Your task to perform on an android device: toggle notification dots Image 0: 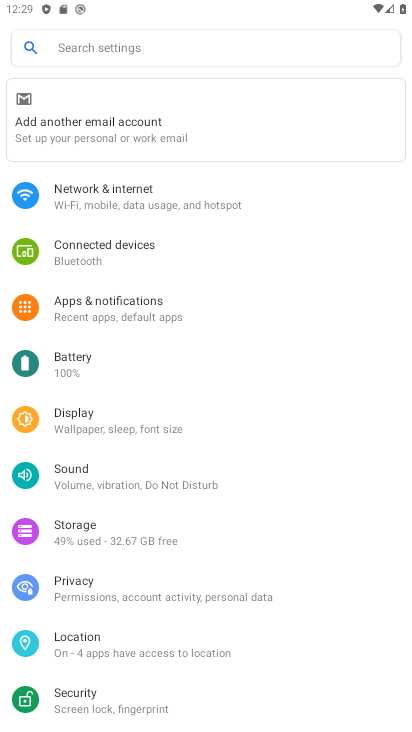
Step 0: click (147, 310)
Your task to perform on an android device: toggle notification dots Image 1: 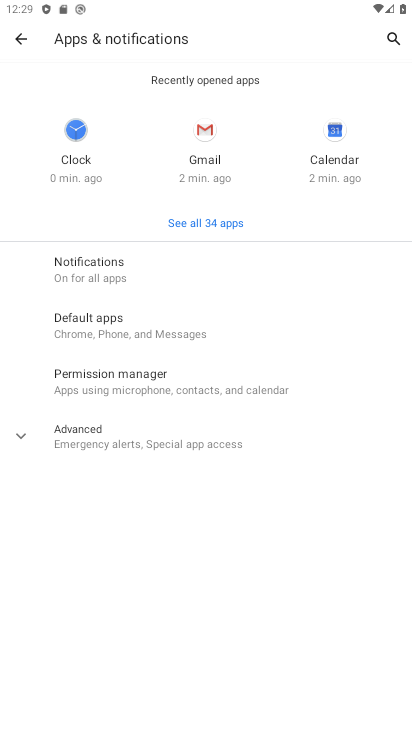
Step 1: click (238, 249)
Your task to perform on an android device: toggle notification dots Image 2: 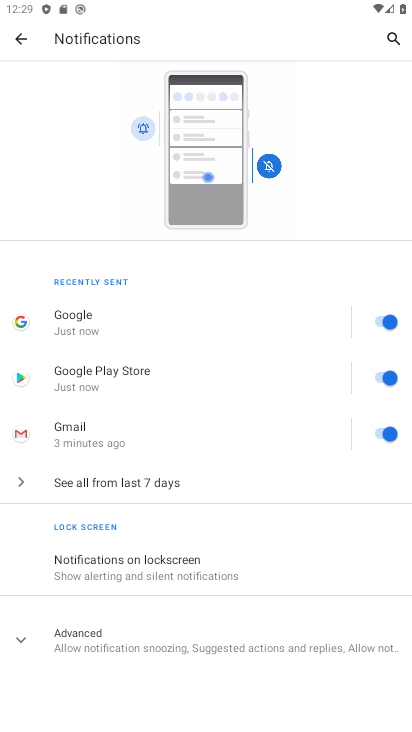
Step 2: drag from (219, 540) to (245, 346)
Your task to perform on an android device: toggle notification dots Image 3: 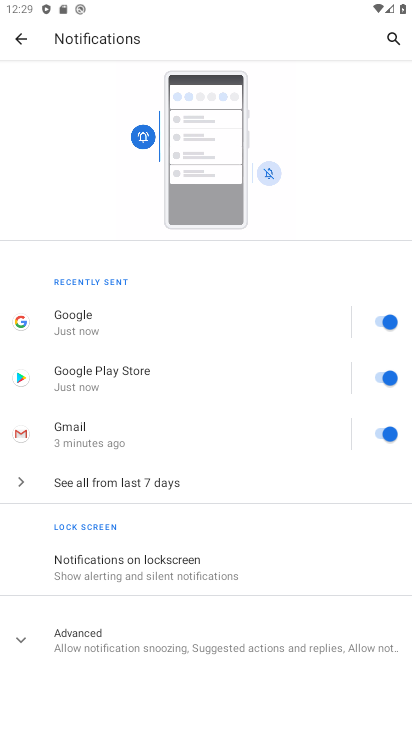
Step 3: click (171, 639)
Your task to perform on an android device: toggle notification dots Image 4: 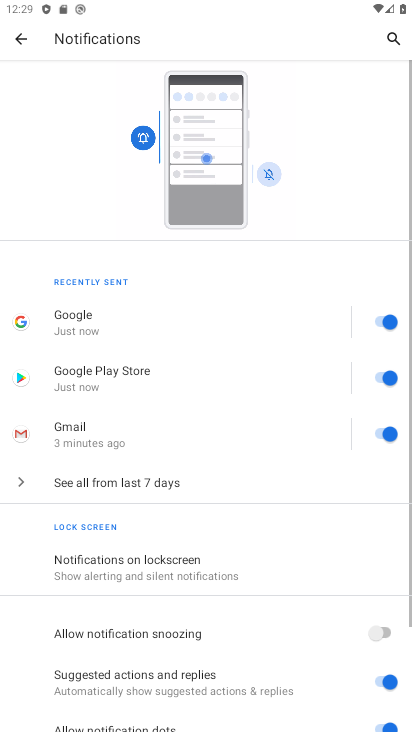
Step 4: drag from (171, 639) to (195, 456)
Your task to perform on an android device: toggle notification dots Image 5: 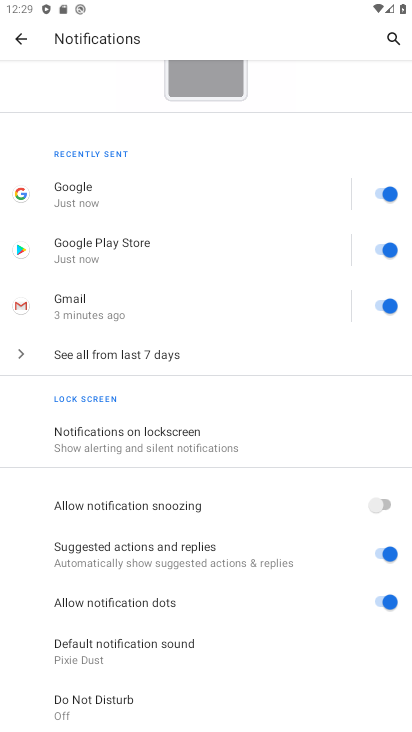
Step 5: click (359, 604)
Your task to perform on an android device: toggle notification dots Image 6: 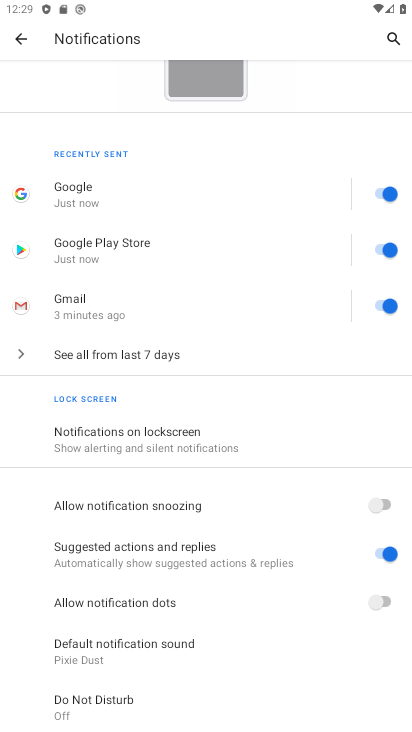
Step 6: task complete